Your task to perform on an android device: Go to Yahoo.com Image 0: 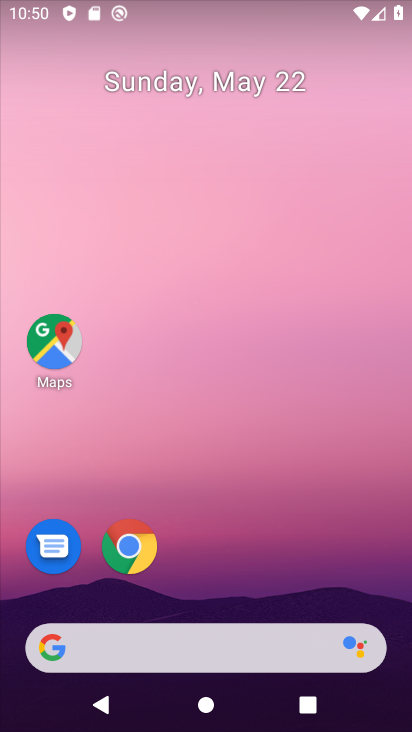
Step 0: drag from (247, 600) to (270, 150)
Your task to perform on an android device: Go to Yahoo.com Image 1: 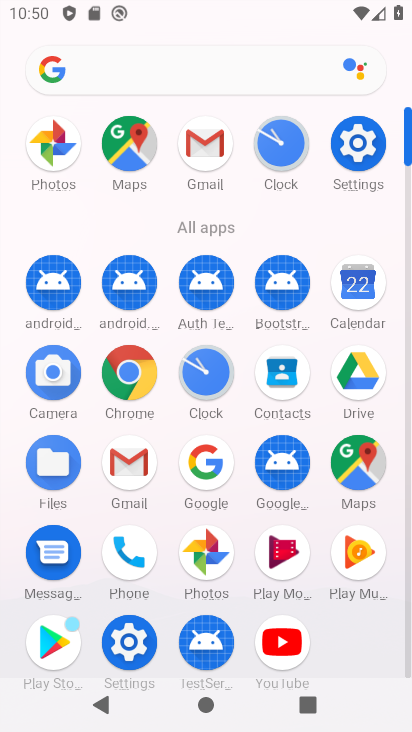
Step 1: click (219, 472)
Your task to perform on an android device: Go to Yahoo.com Image 2: 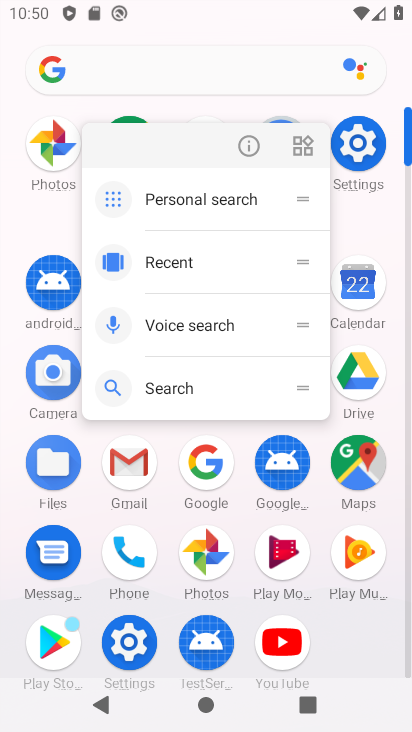
Step 2: click (208, 469)
Your task to perform on an android device: Go to Yahoo.com Image 3: 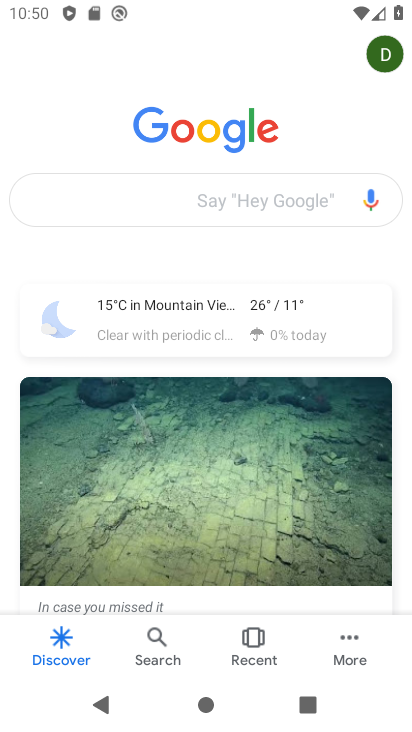
Step 3: click (282, 193)
Your task to perform on an android device: Go to Yahoo.com Image 4: 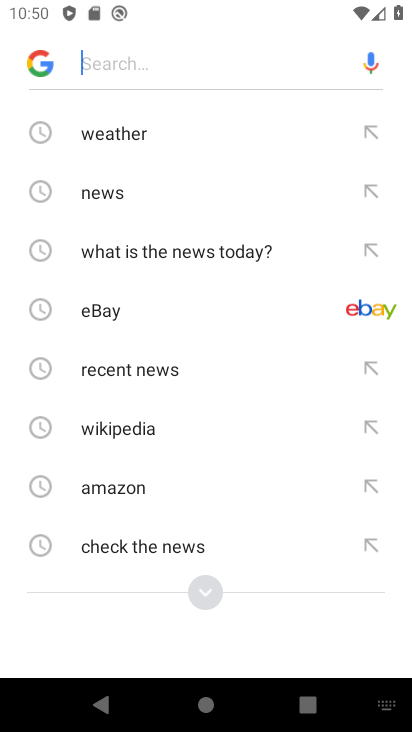
Step 4: click (200, 591)
Your task to perform on an android device: Go to Yahoo.com Image 5: 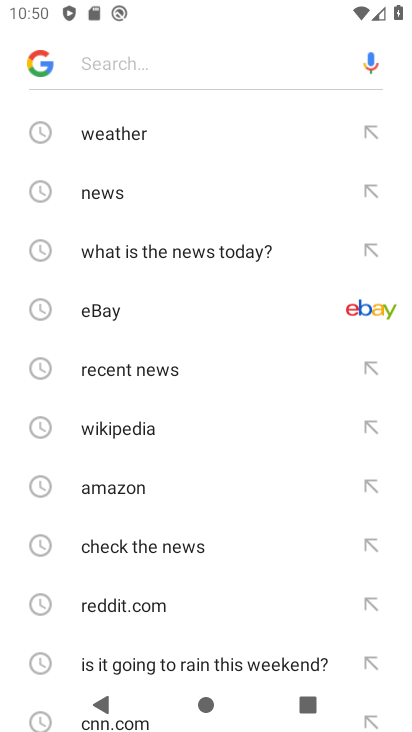
Step 5: drag from (229, 528) to (235, 189)
Your task to perform on an android device: Go to Yahoo.com Image 6: 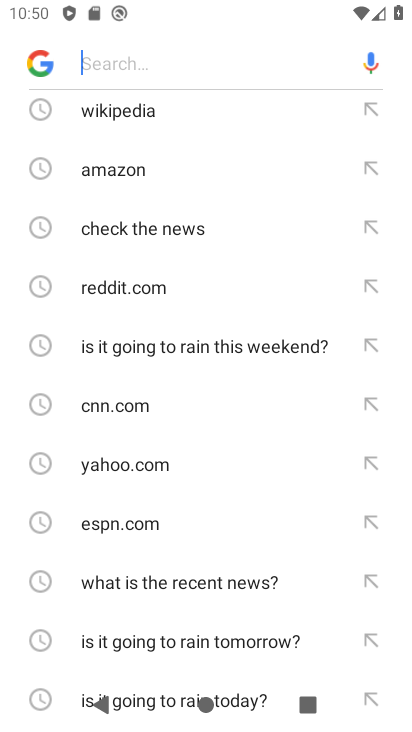
Step 6: click (167, 463)
Your task to perform on an android device: Go to Yahoo.com Image 7: 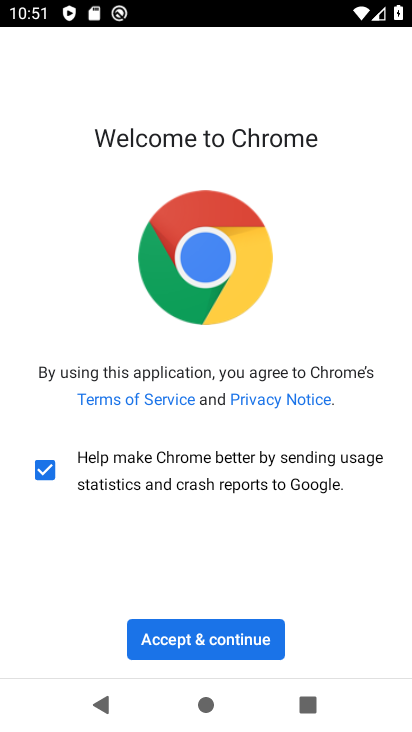
Step 7: drag from (212, 646) to (272, 646)
Your task to perform on an android device: Go to Yahoo.com Image 8: 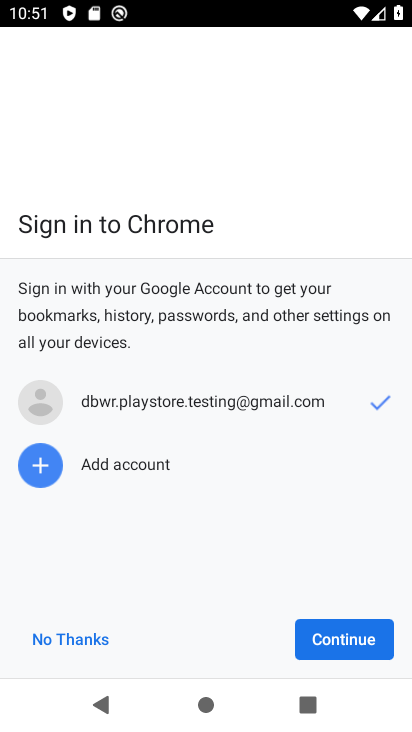
Step 8: click (324, 641)
Your task to perform on an android device: Go to Yahoo.com Image 9: 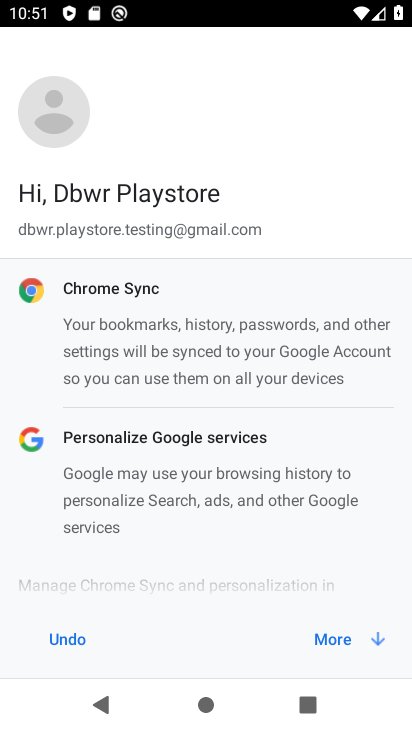
Step 9: click (320, 642)
Your task to perform on an android device: Go to Yahoo.com Image 10: 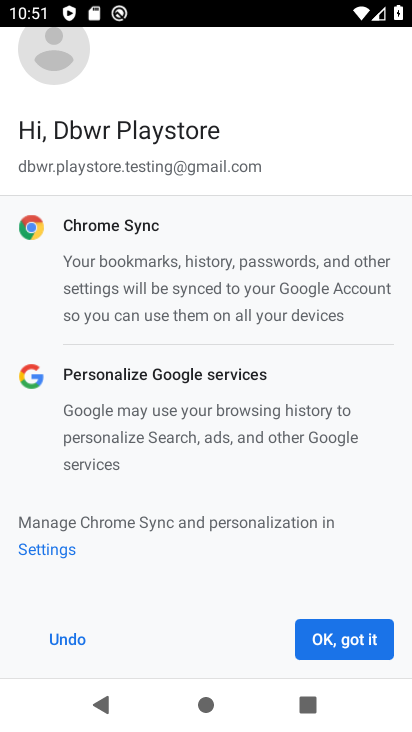
Step 10: click (320, 642)
Your task to perform on an android device: Go to Yahoo.com Image 11: 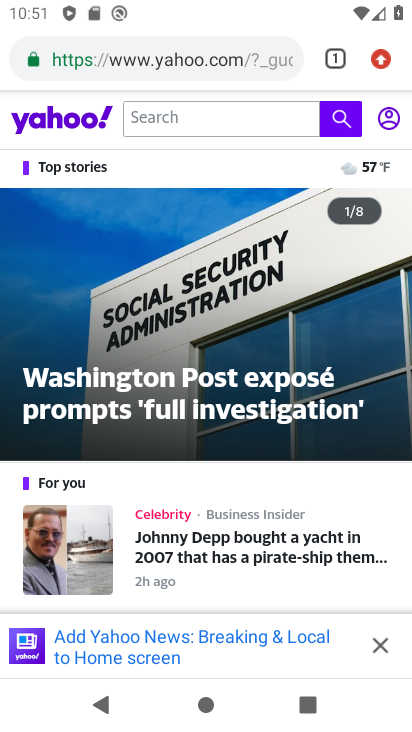
Step 11: task complete